Your task to perform on an android device: change the upload size in google photos Image 0: 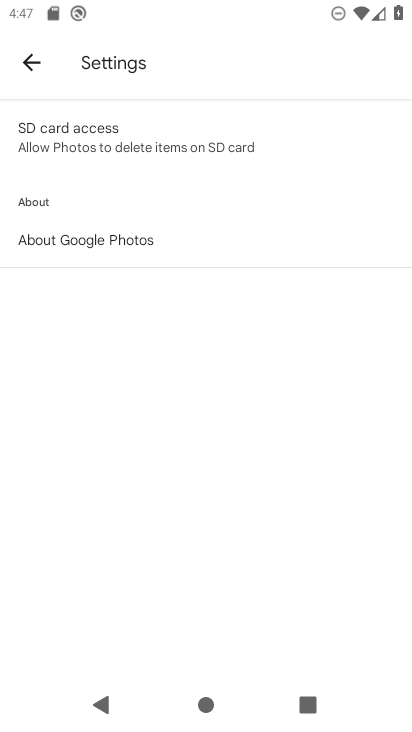
Step 0: press home button
Your task to perform on an android device: change the upload size in google photos Image 1: 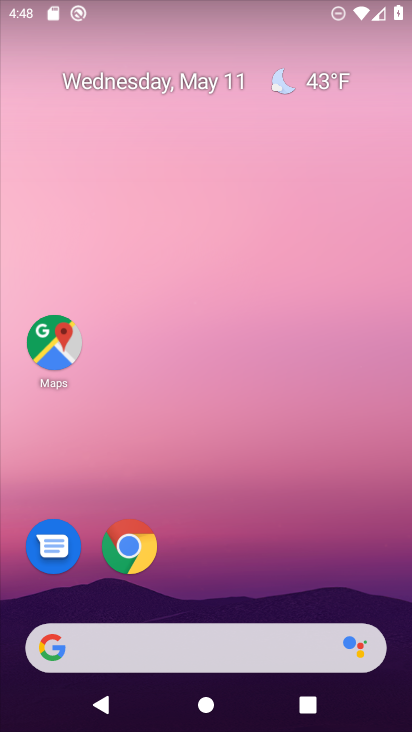
Step 1: drag from (217, 629) to (258, 326)
Your task to perform on an android device: change the upload size in google photos Image 2: 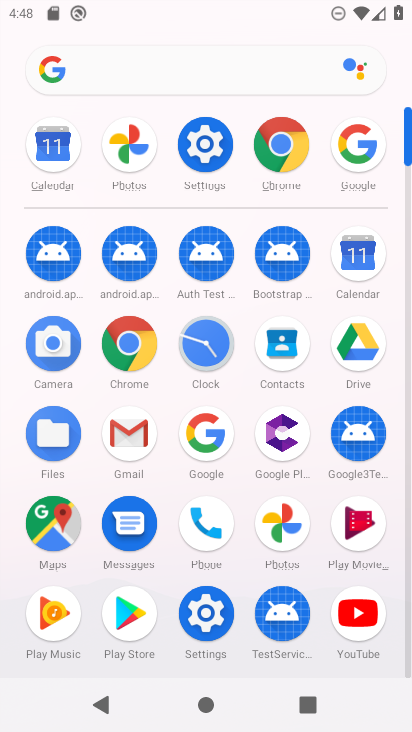
Step 2: click (293, 516)
Your task to perform on an android device: change the upload size in google photos Image 3: 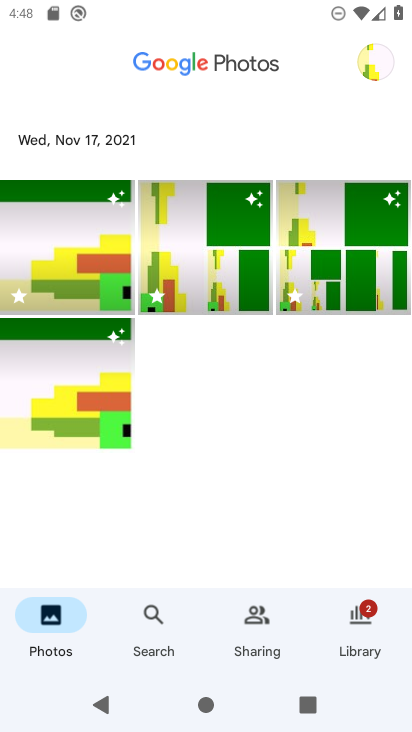
Step 3: click (376, 67)
Your task to perform on an android device: change the upload size in google photos Image 4: 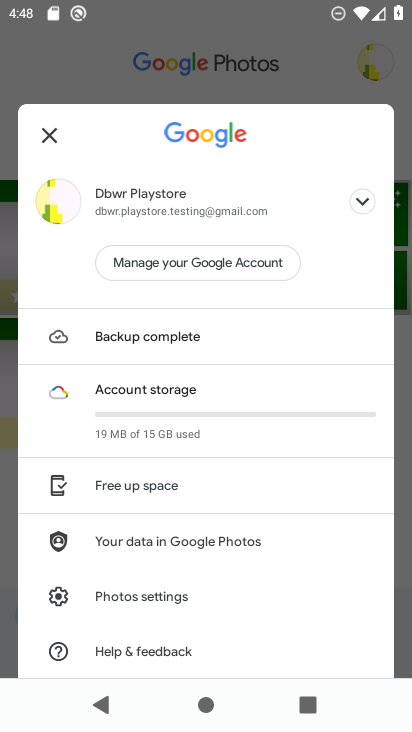
Step 4: click (154, 598)
Your task to perform on an android device: change the upload size in google photos Image 5: 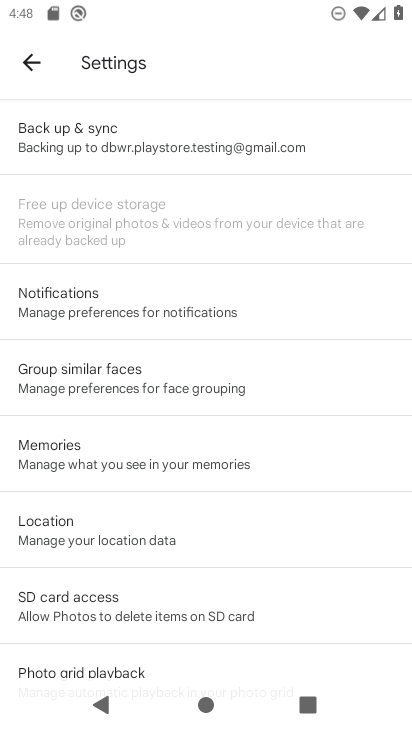
Step 5: click (108, 141)
Your task to perform on an android device: change the upload size in google photos Image 6: 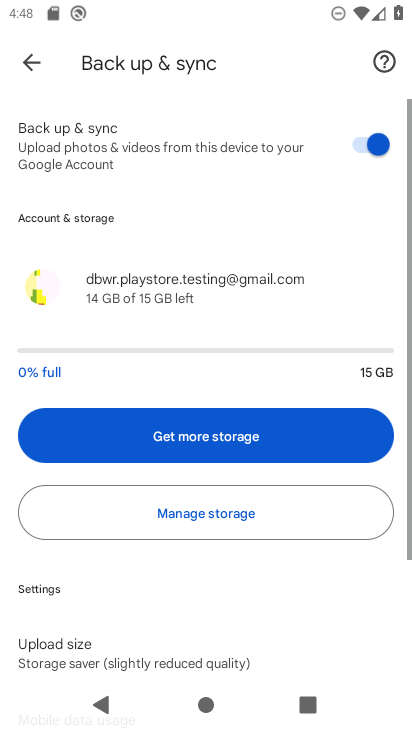
Step 6: drag from (165, 647) to (159, 357)
Your task to perform on an android device: change the upload size in google photos Image 7: 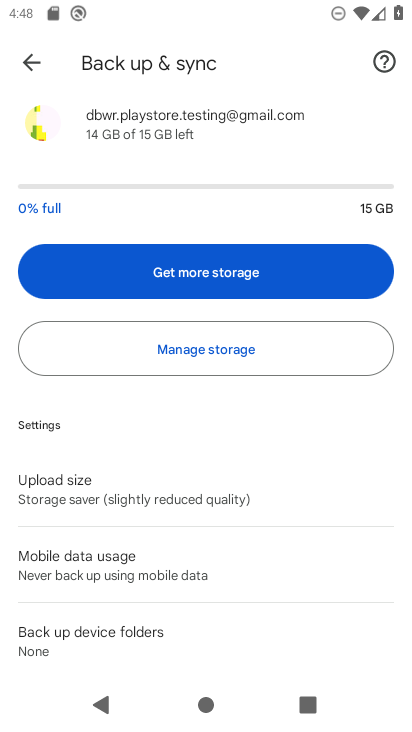
Step 7: click (32, 493)
Your task to perform on an android device: change the upload size in google photos Image 8: 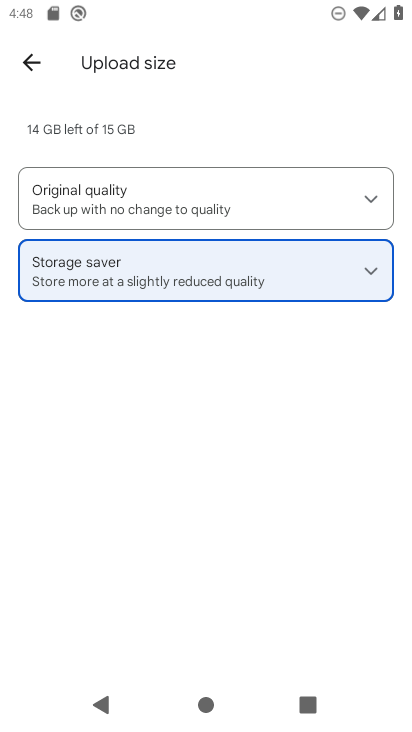
Step 8: click (152, 198)
Your task to perform on an android device: change the upload size in google photos Image 9: 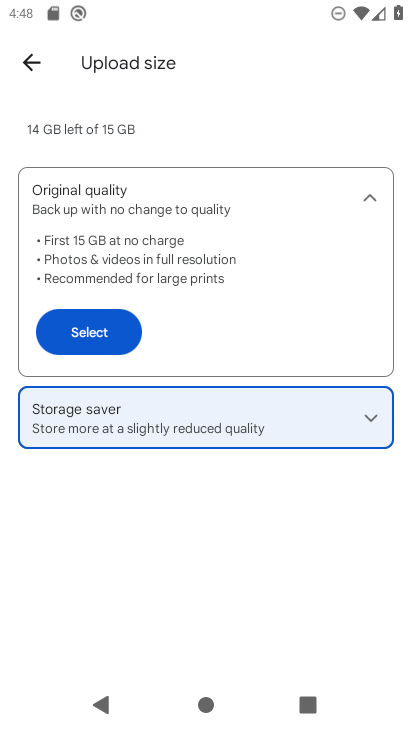
Step 9: click (99, 341)
Your task to perform on an android device: change the upload size in google photos Image 10: 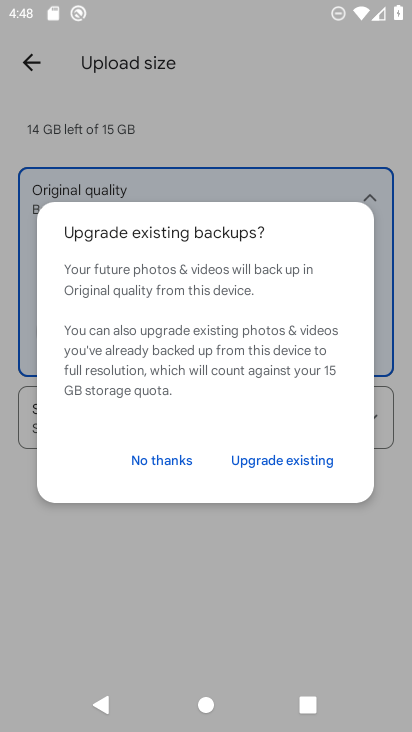
Step 10: click (288, 457)
Your task to perform on an android device: change the upload size in google photos Image 11: 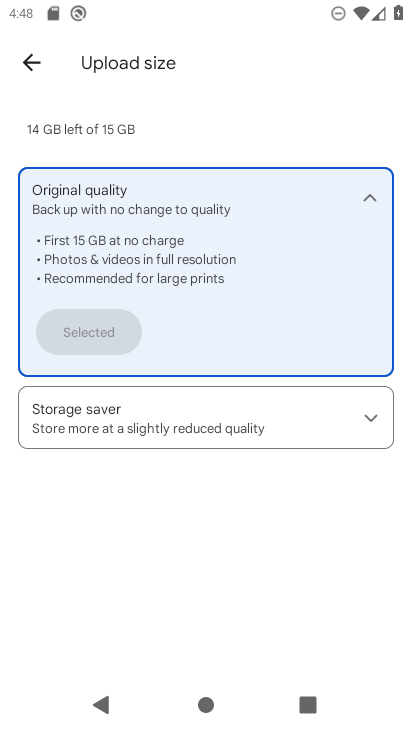
Step 11: task complete